Your task to perform on an android device: Open Google Maps and go to "Timeline" Image 0: 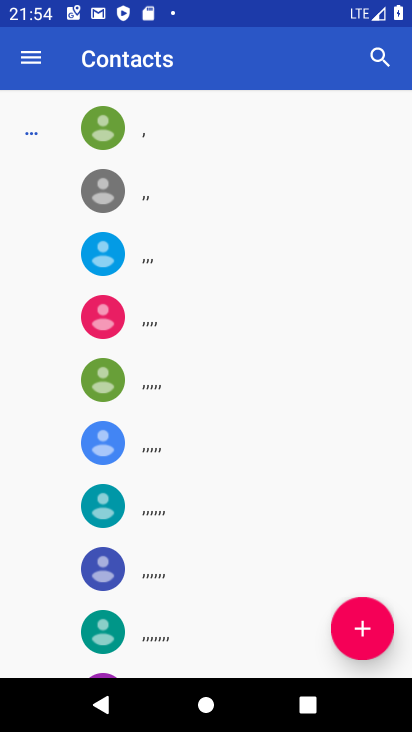
Step 0: press home button
Your task to perform on an android device: Open Google Maps and go to "Timeline" Image 1: 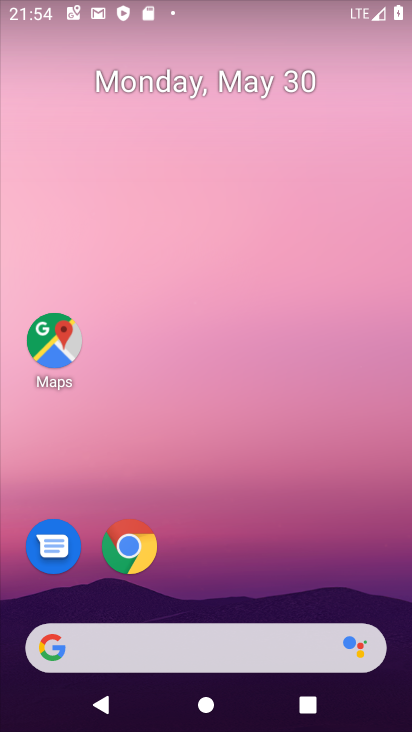
Step 1: drag from (270, 506) to (276, 125)
Your task to perform on an android device: Open Google Maps and go to "Timeline" Image 2: 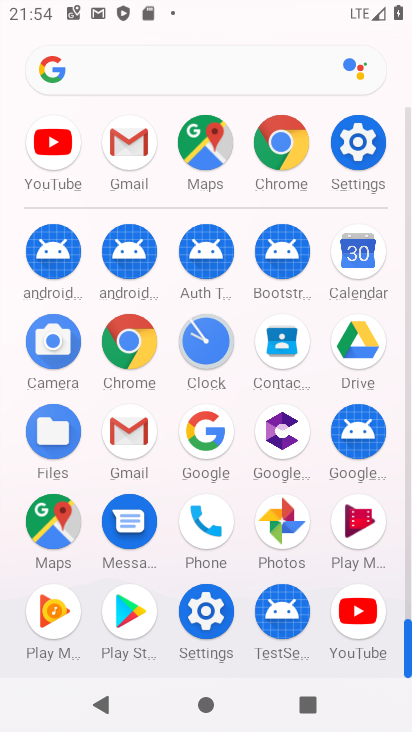
Step 2: click (54, 524)
Your task to perform on an android device: Open Google Maps and go to "Timeline" Image 3: 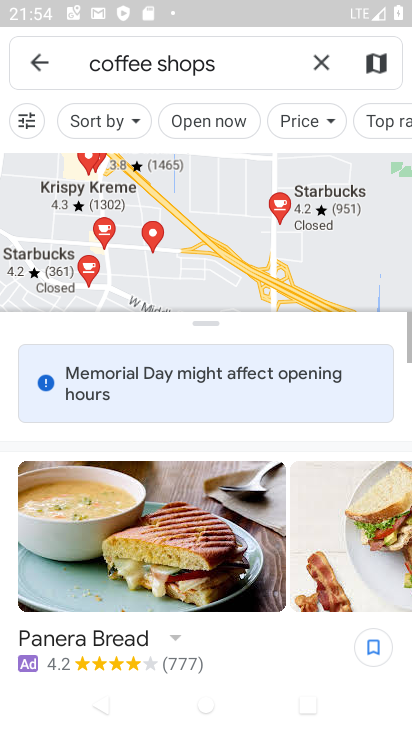
Step 3: click (34, 67)
Your task to perform on an android device: Open Google Maps and go to "Timeline" Image 4: 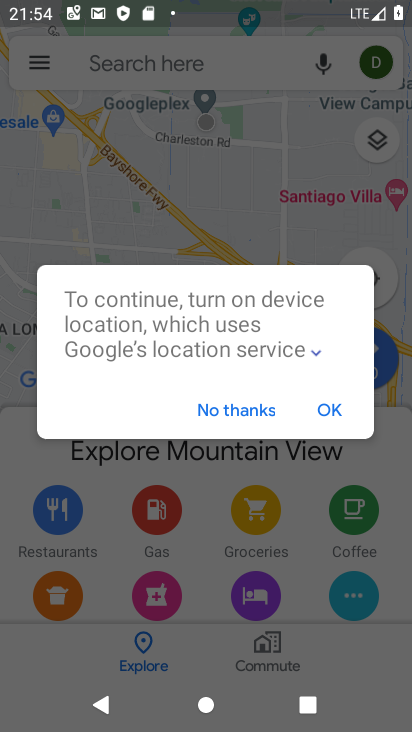
Step 4: click (34, 67)
Your task to perform on an android device: Open Google Maps and go to "Timeline" Image 5: 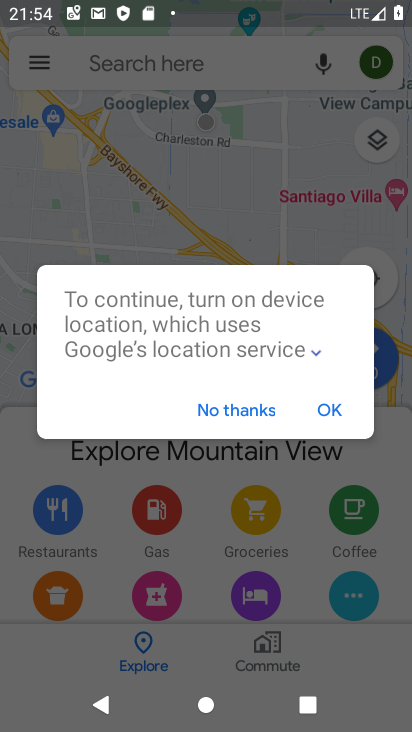
Step 5: click (258, 412)
Your task to perform on an android device: Open Google Maps and go to "Timeline" Image 6: 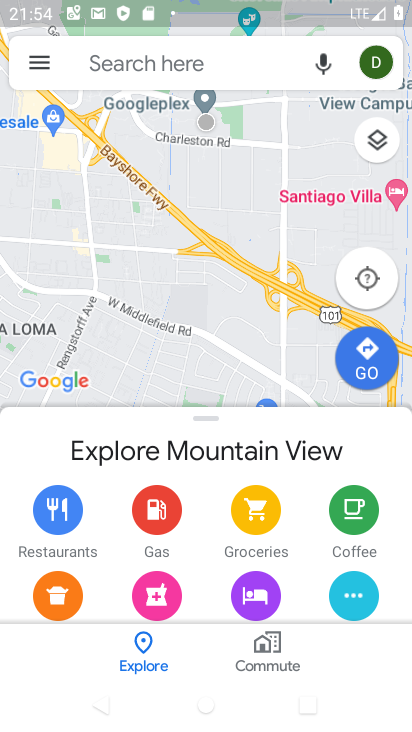
Step 6: click (40, 72)
Your task to perform on an android device: Open Google Maps and go to "Timeline" Image 7: 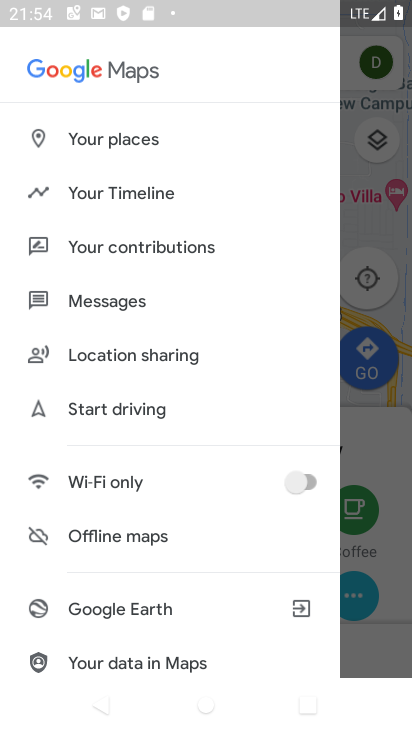
Step 7: click (140, 185)
Your task to perform on an android device: Open Google Maps and go to "Timeline" Image 8: 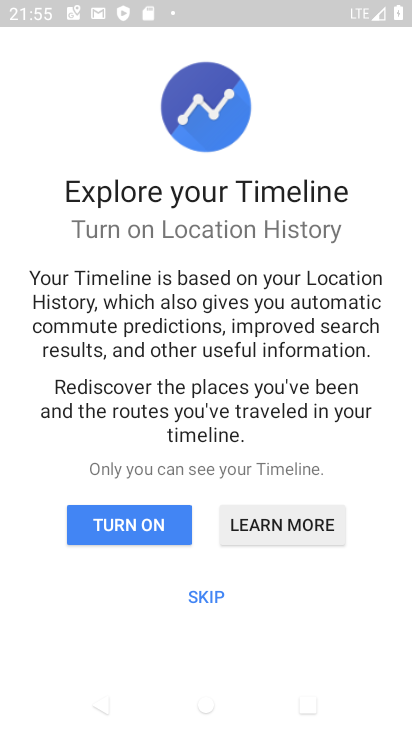
Step 8: click (200, 599)
Your task to perform on an android device: Open Google Maps and go to "Timeline" Image 9: 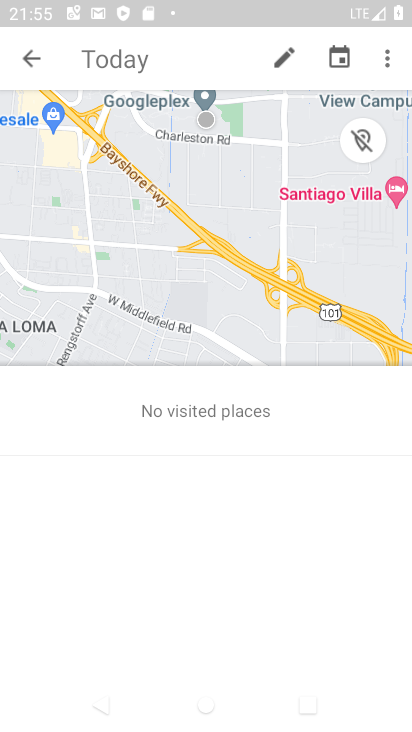
Step 9: task complete